Your task to perform on an android device: Show me popular videos on Youtube Image 0: 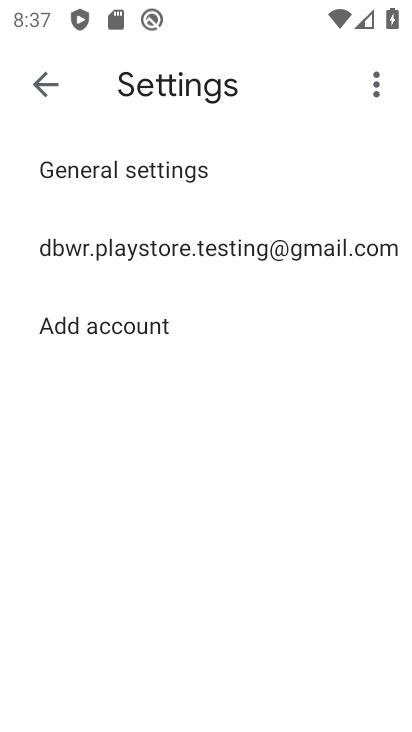
Step 0: press home button
Your task to perform on an android device: Show me popular videos on Youtube Image 1: 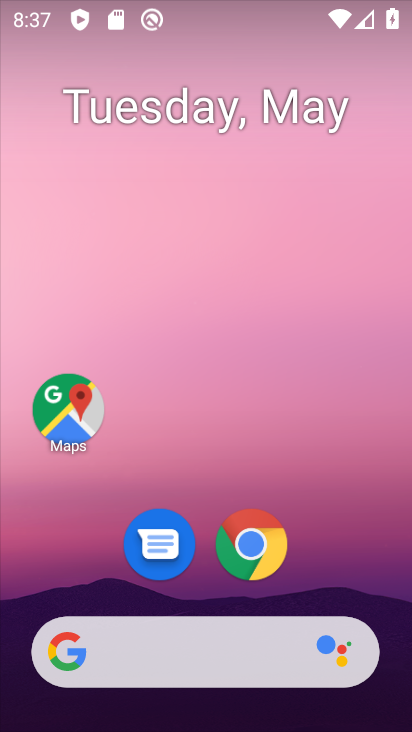
Step 1: drag from (363, 545) to (367, 197)
Your task to perform on an android device: Show me popular videos on Youtube Image 2: 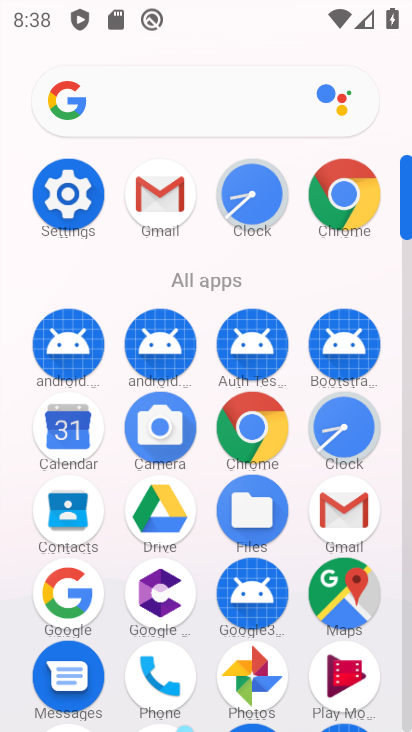
Step 2: drag from (238, 640) to (302, 309)
Your task to perform on an android device: Show me popular videos on Youtube Image 3: 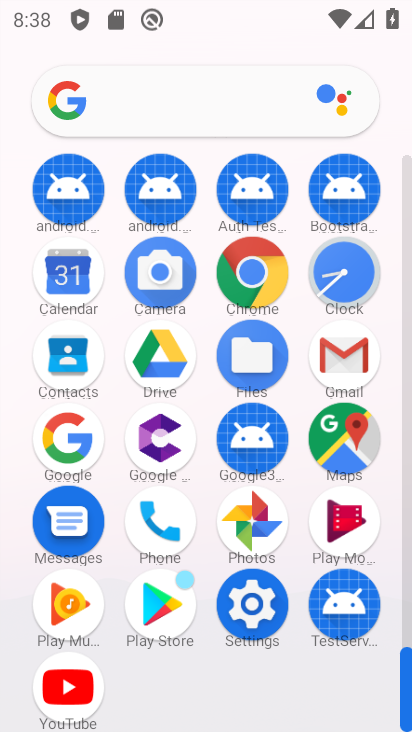
Step 3: click (87, 691)
Your task to perform on an android device: Show me popular videos on Youtube Image 4: 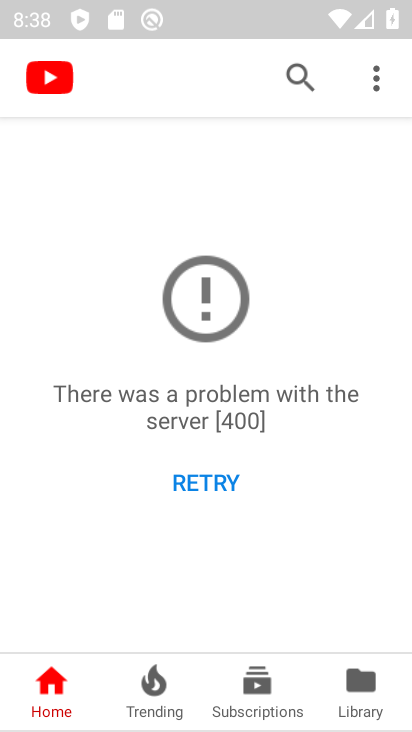
Step 4: click (164, 708)
Your task to perform on an android device: Show me popular videos on Youtube Image 5: 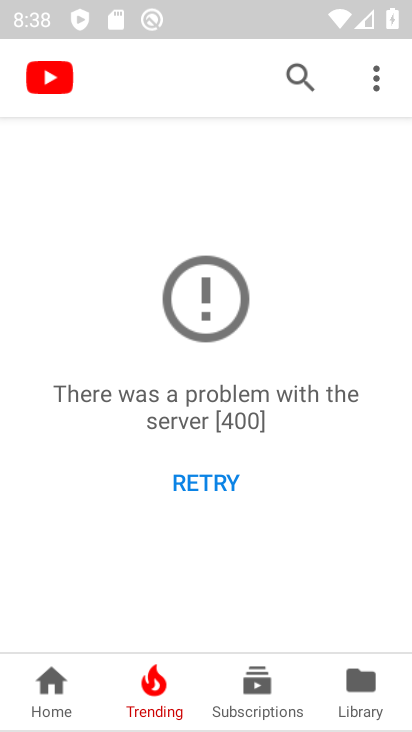
Step 5: task complete